Your task to perform on an android device: Open privacy settings Image 0: 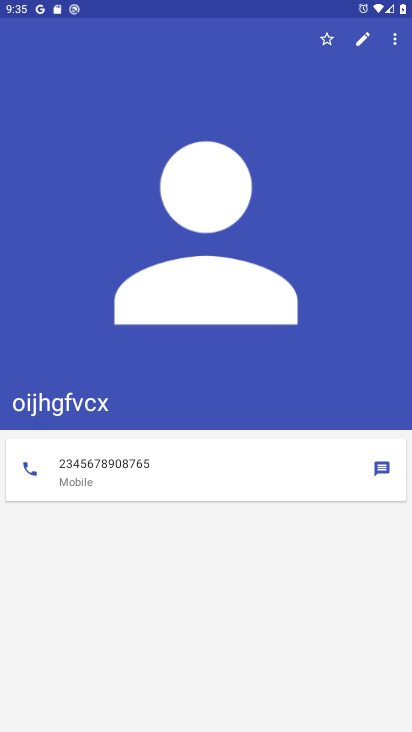
Step 0: press home button
Your task to perform on an android device: Open privacy settings Image 1: 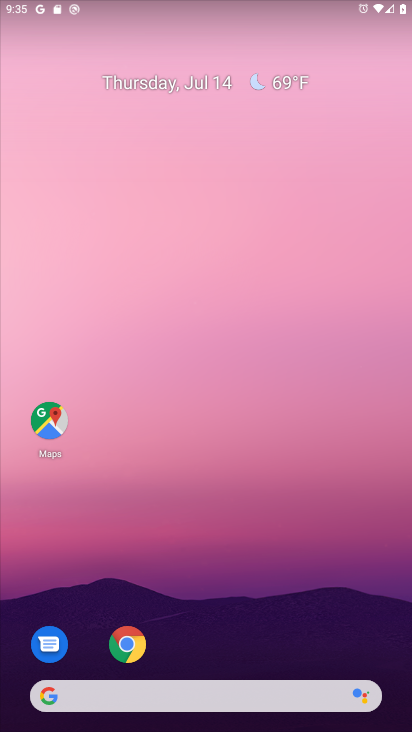
Step 1: drag from (217, 653) to (224, 103)
Your task to perform on an android device: Open privacy settings Image 2: 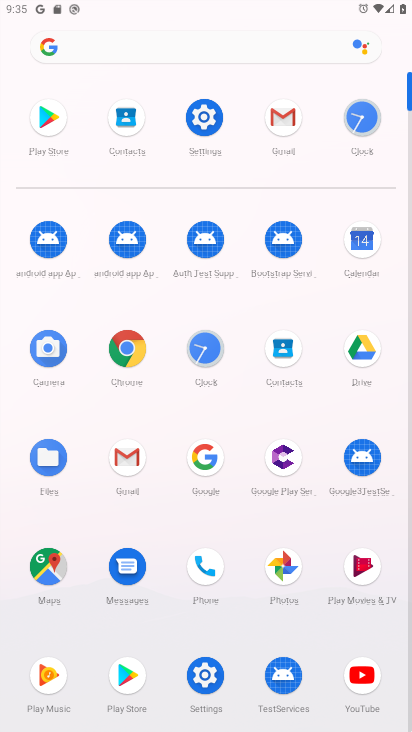
Step 2: click (216, 120)
Your task to perform on an android device: Open privacy settings Image 3: 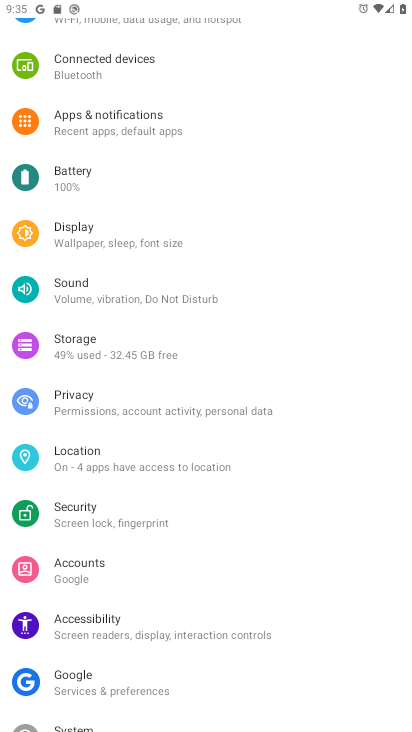
Step 3: click (139, 399)
Your task to perform on an android device: Open privacy settings Image 4: 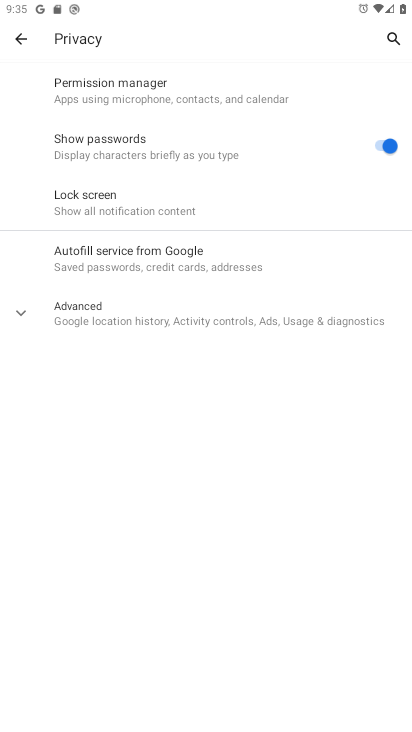
Step 4: task complete